Your task to perform on an android device: Go to Google Image 0: 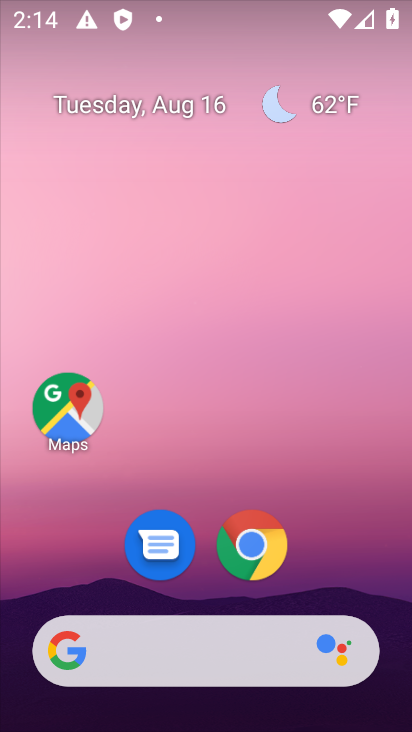
Step 0: drag from (211, 618) to (188, 313)
Your task to perform on an android device: Go to Google Image 1: 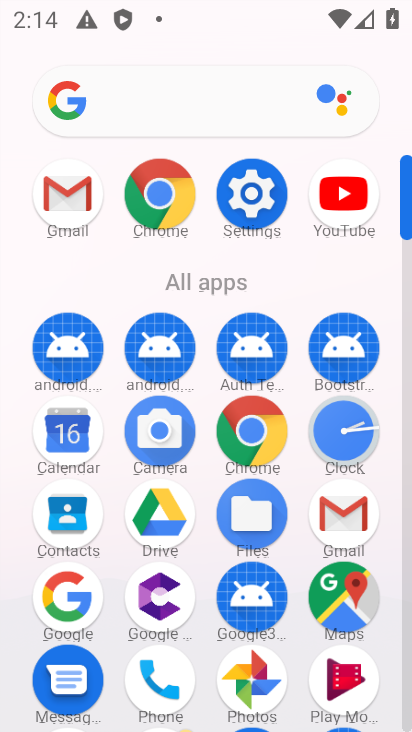
Step 1: click (66, 598)
Your task to perform on an android device: Go to Google Image 2: 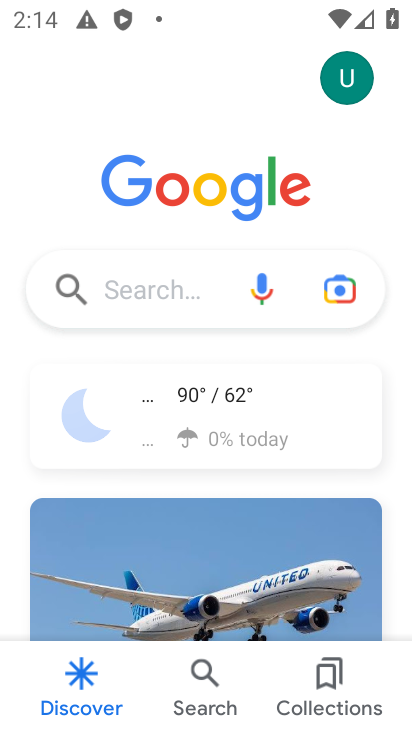
Step 2: task complete